Your task to perform on an android device: manage bookmarks in the chrome app Image 0: 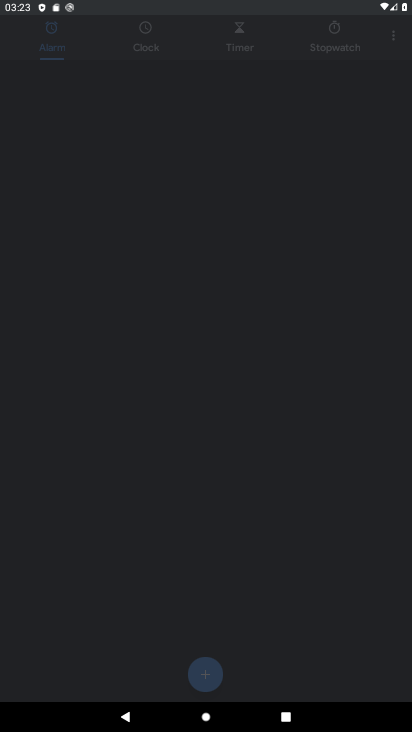
Step 0: drag from (262, 432) to (292, 236)
Your task to perform on an android device: manage bookmarks in the chrome app Image 1: 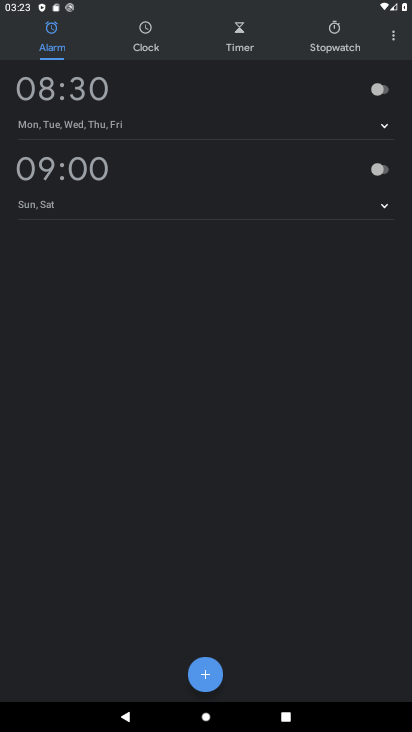
Step 1: press home button
Your task to perform on an android device: manage bookmarks in the chrome app Image 2: 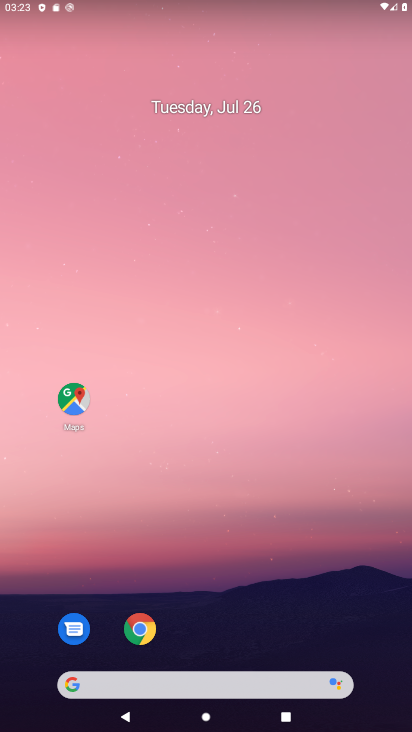
Step 2: drag from (343, 600) to (362, 141)
Your task to perform on an android device: manage bookmarks in the chrome app Image 3: 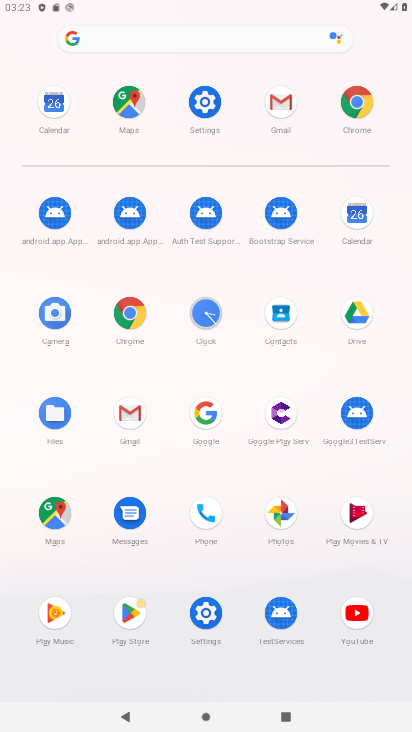
Step 3: click (127, 318)
Your task to perform on an android device: manage bookmarks in the chrome app Image 4: 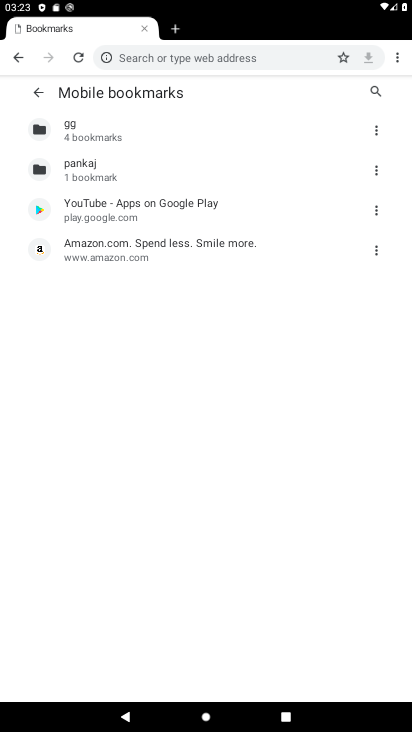
Step 4: drag from (397, 52) to (295, 120)
Your task to perform on an android device: manage bookmarks in the chrome app Image 5: 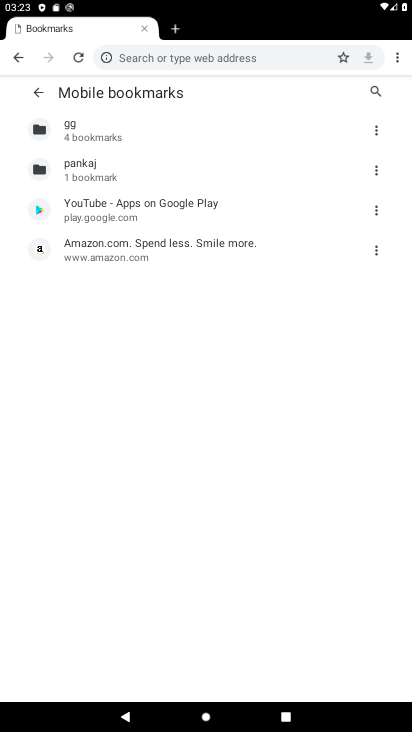
Step 5: click (401, 57)
Your task to perform on an android device: manage bookmarks in the chrome app Image 6: 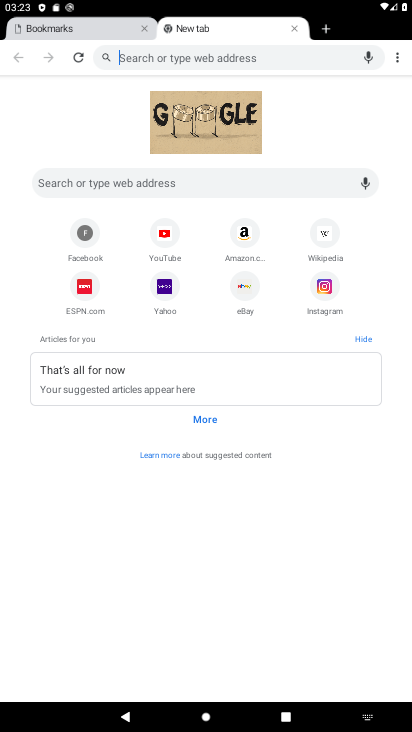
Step 6: click (84, 33)
Your task to perform on an android device: manage bookmarks in the chrome app Image 7: 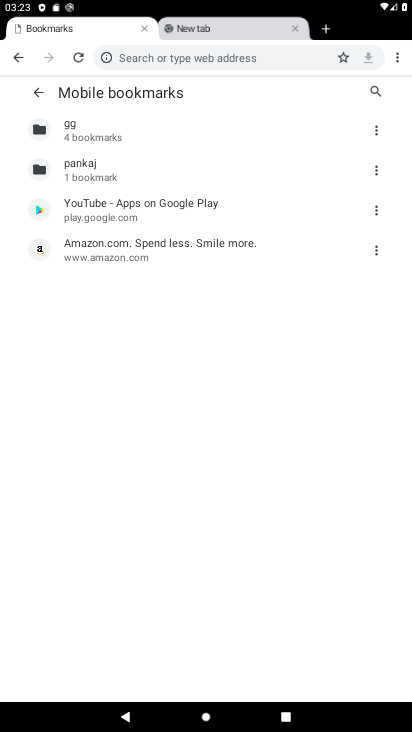
Step 7: drag from (392, 57) to (228, 112)
Your task to perform on an android device: manage bookmarks in the chrome app Image 8: 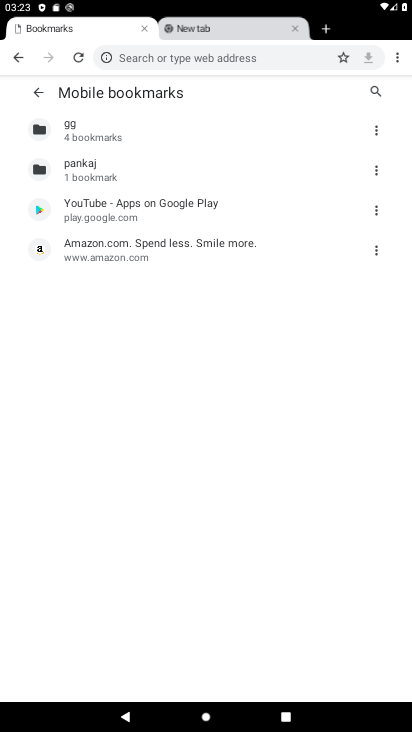
Step 8: click (375, 126)
Your task to perform on an android device: manage bookmarks in the chrome app Image 9: 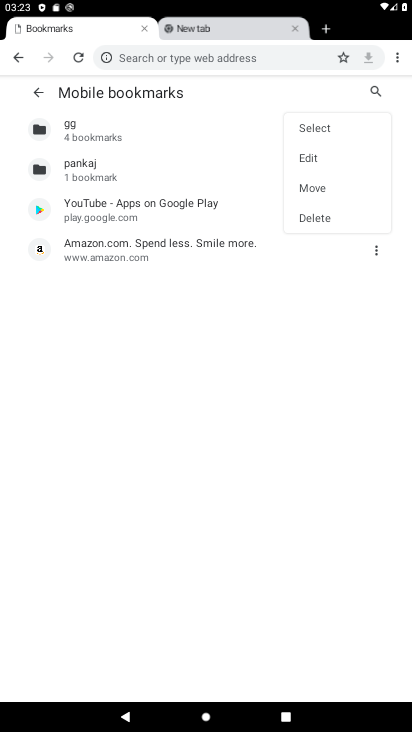
Step 9: click (314, 154)
Your task to perform on an android device: manage bookmarks in the chrome app Image 10: 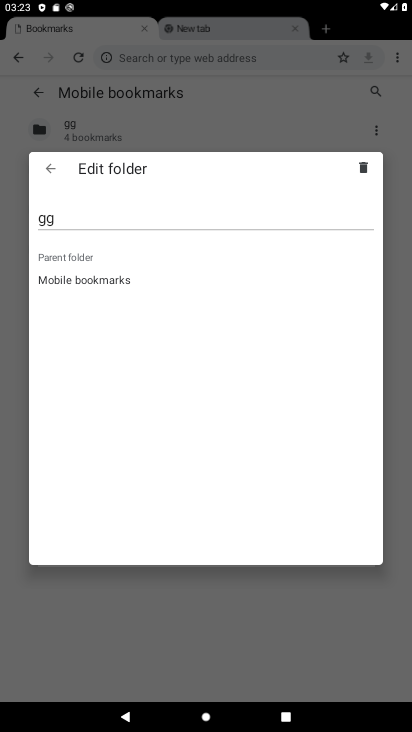
Step 10: click (355, 167)
Your task to perform on an android device: manage bookmarks in the chrome app Image 11: 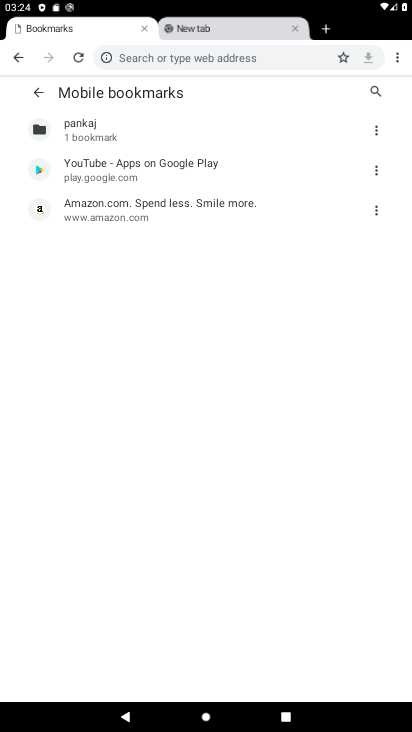
Step 11: task complete